Your task to perform on an android device: Open location settings Image 0: 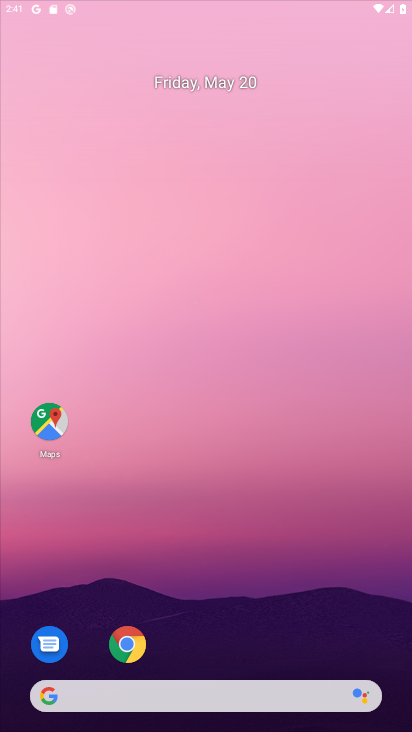
Step 0: drag from (296, 434) to (292, 210)
Your task to perform on an android device: Open location settings Image 1: 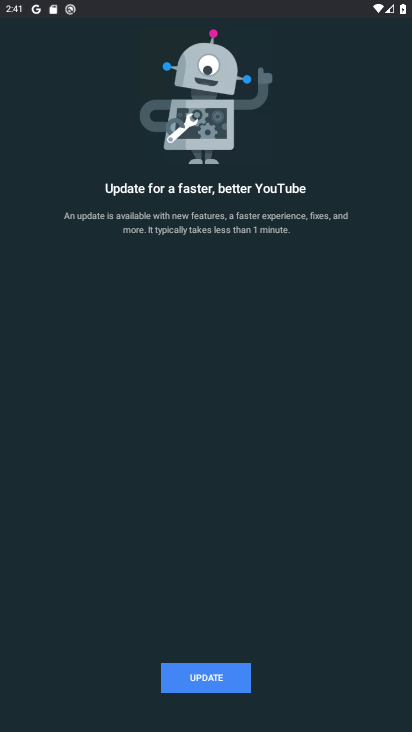
Step 1: press home button
Your task to perform on an android device: Open location settings Image 2: 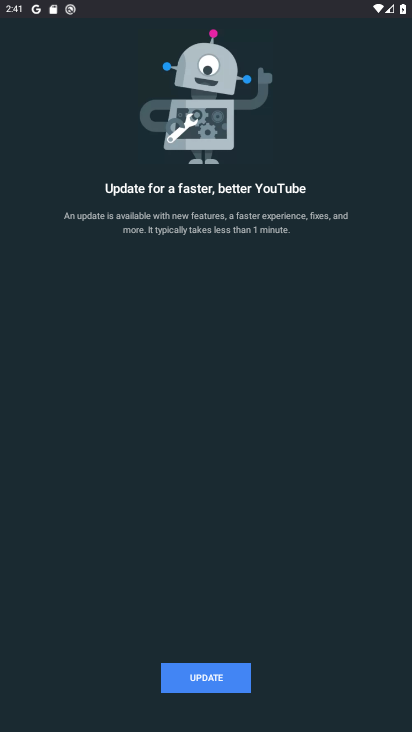
Step 2: press home button
Your task to perform on an android device: Open location settings Image 3: 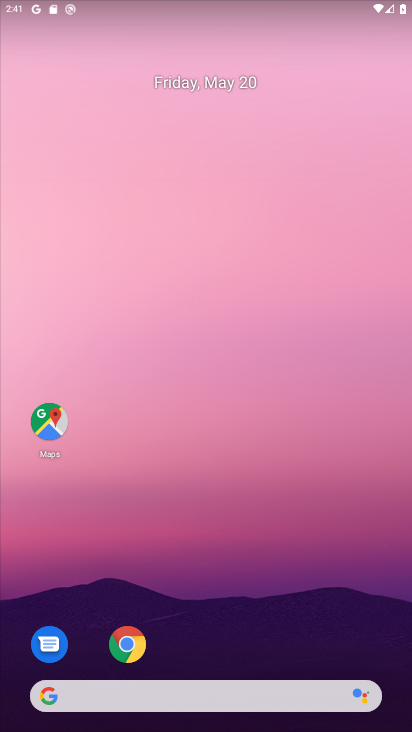
Step 3: drag from (298, 557) to (273, 112)
Your task to perform on an android device: Open location settings Image 4: 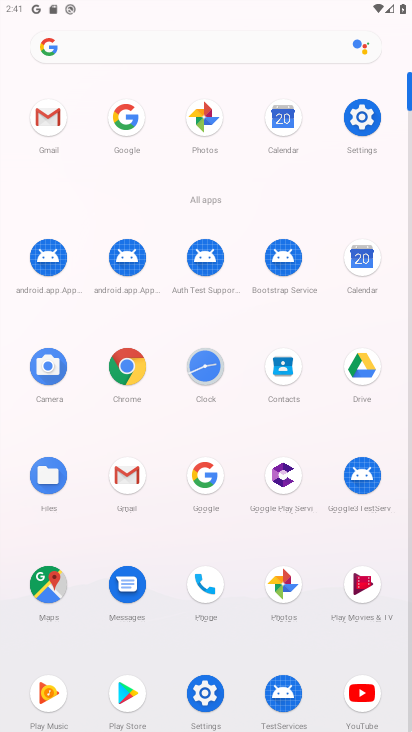
Step 4: click (365, 132)
Your task to perform on an android device: Open location settings Image 5: 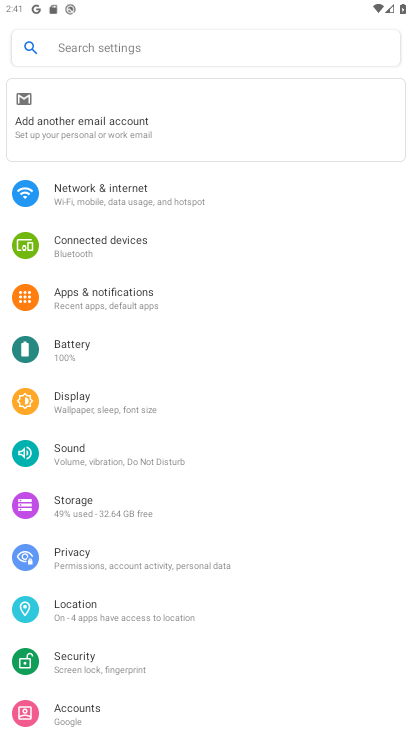
Step 5: click (149, 604)
Your task to perform on an android device: Open location settings Image 6: 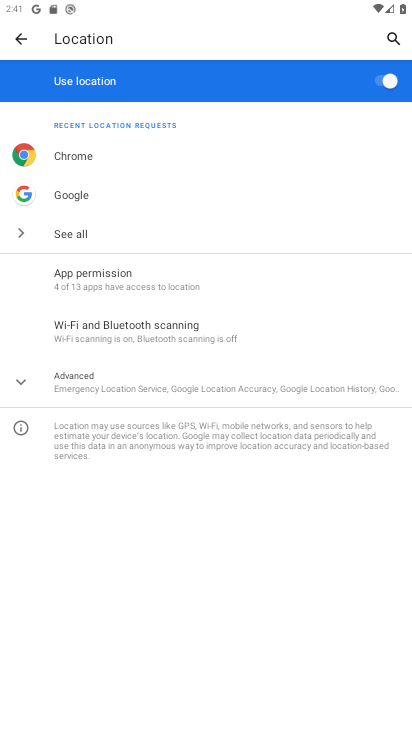
Step 6: task complete